Your task to perform on an android device: change timer sound Image 0: 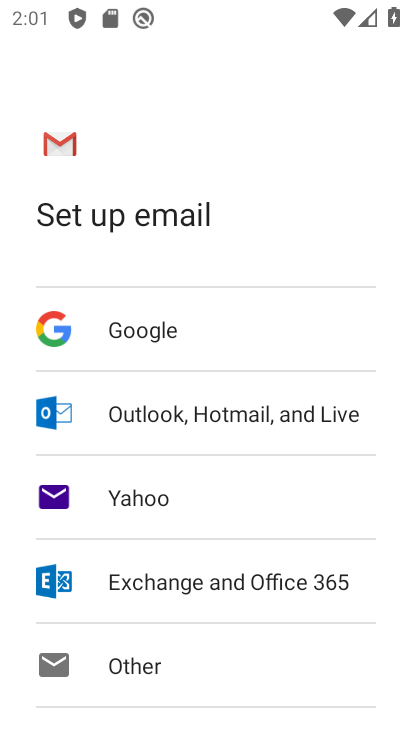
Step 0: press home button
Your task to perform on an android device: change timer sound Image 1: 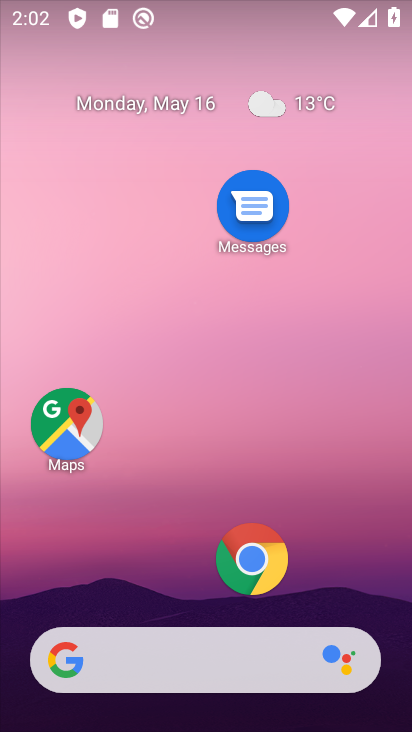
Step 1: drag from (136, 458) to (168, 12)
Your task to perform on an android device: change timer sound Image 2: 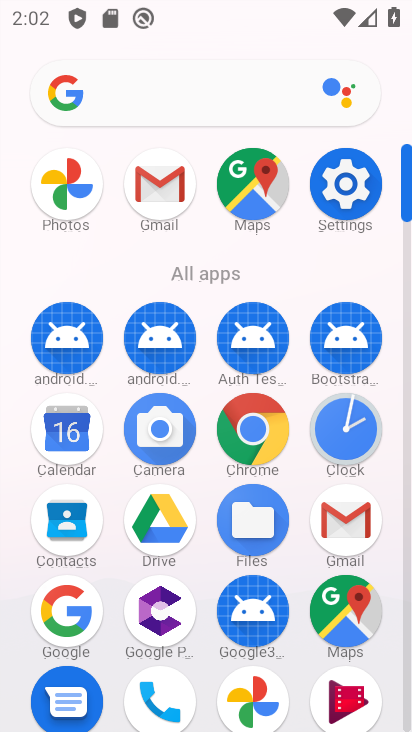
Step 2: click (344, 433)
Your task to perform on an android device: change timer sound Image 3: 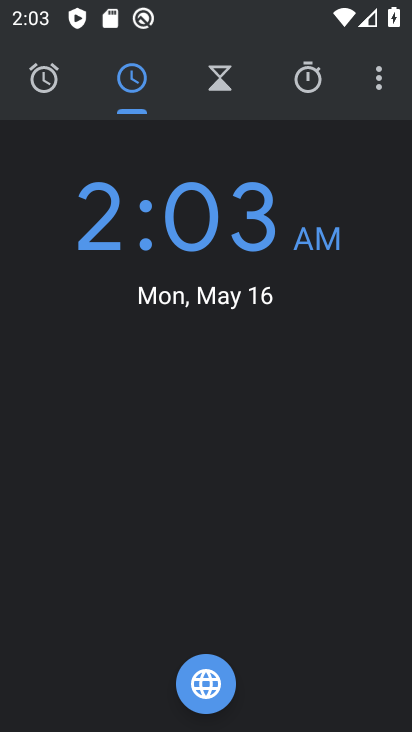
Step 3: click (380, 83)
Your task to perform on an android device: change timer sound Image 4: 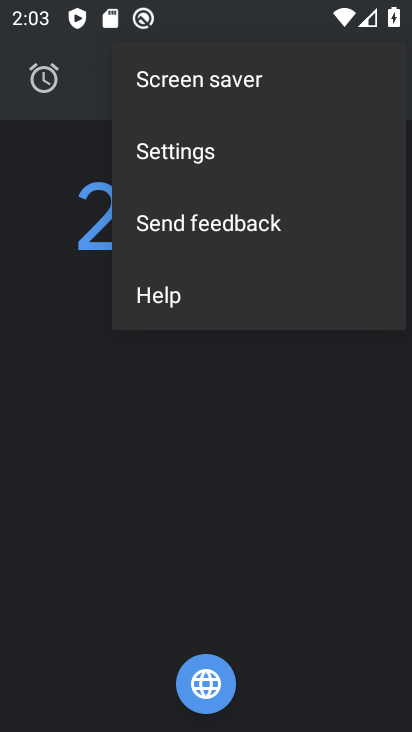
Step 4: click (177, 146)
Your task to perform on an android device: change timer sound Image 5: 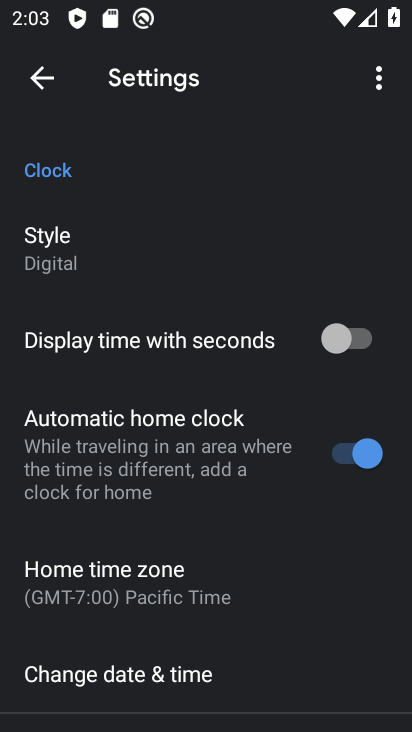
Step 5: drag from (117, 622) to (134, 399)
Your task to perform on an android device: change timer sound Image 6: 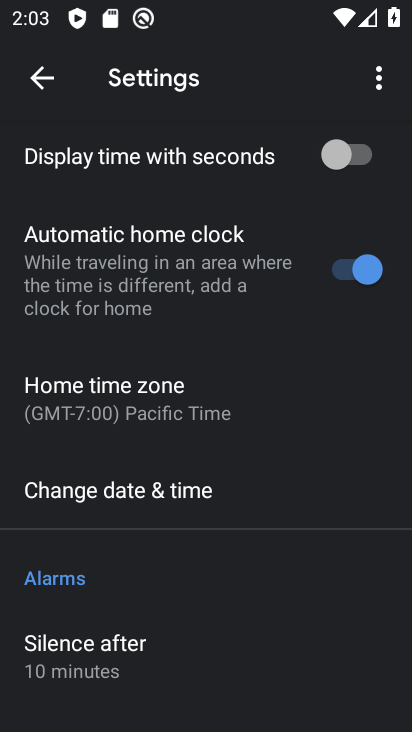
Step 6: drag from (133, 688) to (145, 375)
Your task to perform on an android device: change timer sound Image 7: 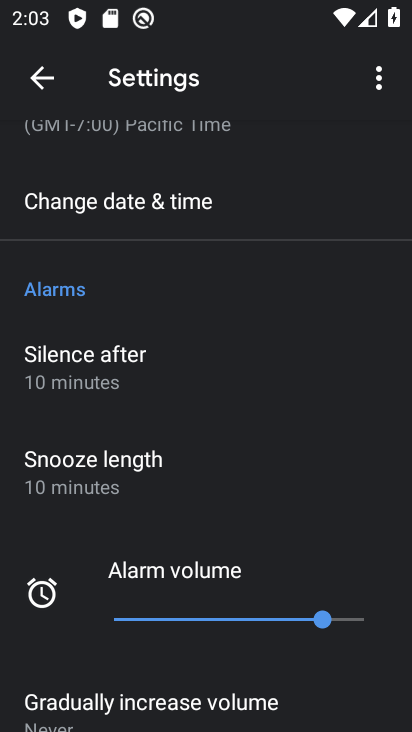
Step 7: drag from (226, 664) to (253, 372)
Your task to perform on an android device: change timer sound Image 8: 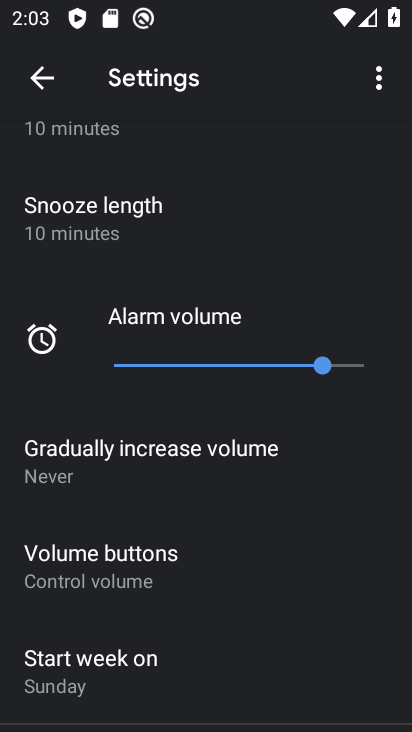
Step 8: drag from (211, 651) to (286, 236)
Your task to perform on an android device: change timer sound Image 9: 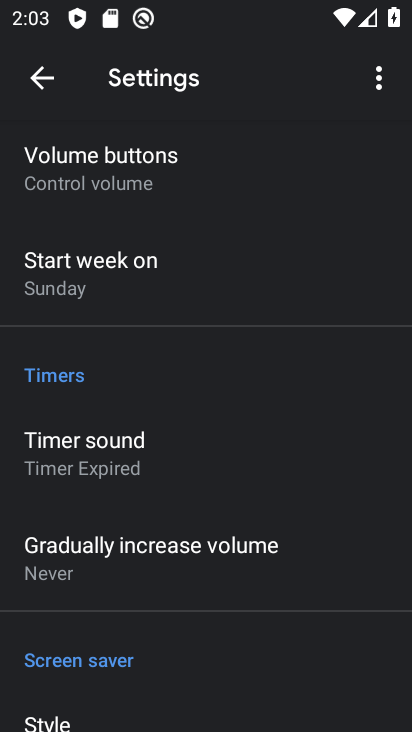
Step 9: drag from (247, 596) to (264, 371)
Your task to perform on an android device: change timer sound Image 10: 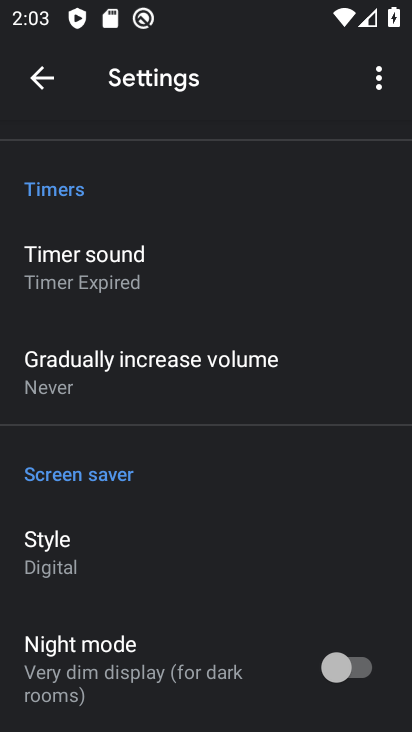
Step 10: click (126, 273)
Your task to perform on an android device: change timer sound Image 11: 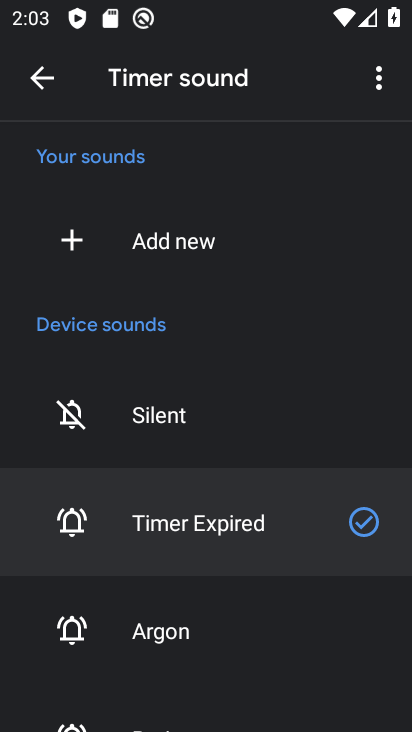
Step 11: click (138, 423)
Your task to perform on an android device: change timer sound Image 12: 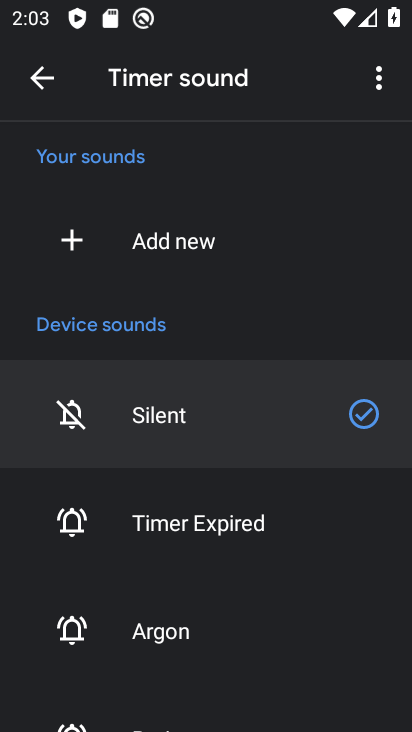
Step 12: task complete